Your task to perform on an android device: What's on my calendar tomorrow? Image 0: 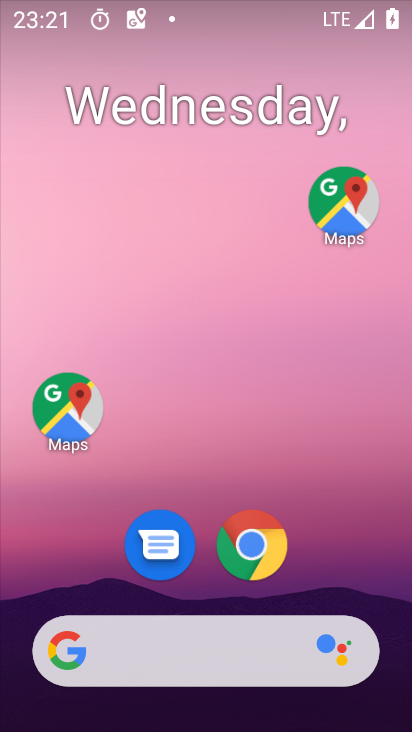
Step 0: drag from (315, 597) to (269, 123)
Your task to perform on an android device: What's on my calendar tomorrow? Image 1: 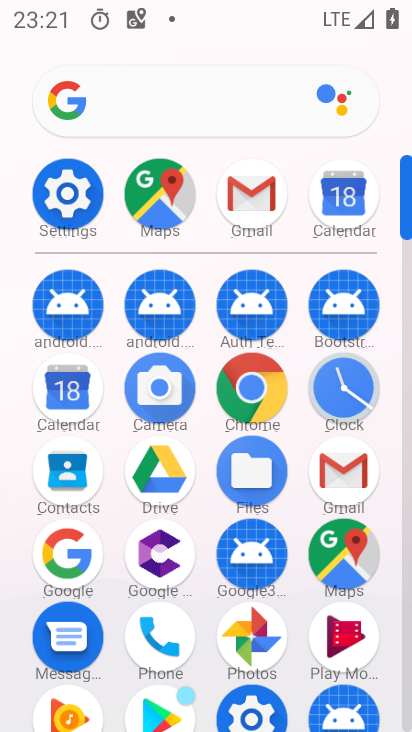
Step 1: click (62, 384)
Your task to perform on an android device: What's on my calendar tomorrow? Image 2: 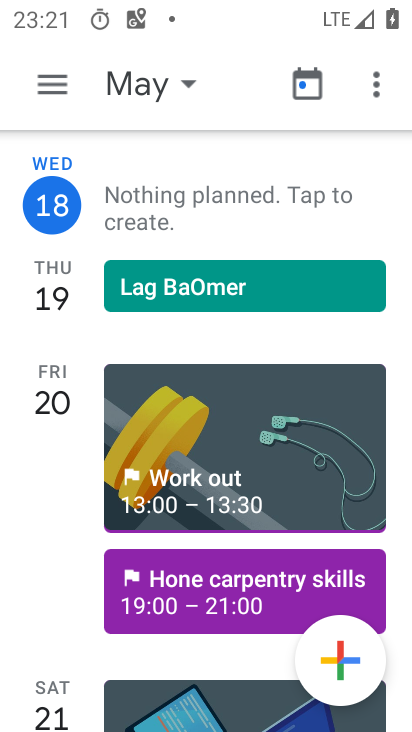
Step 2: click (151, 90)
Your task to perform on an android device: What's on my calendar tomorrow? Image 3: 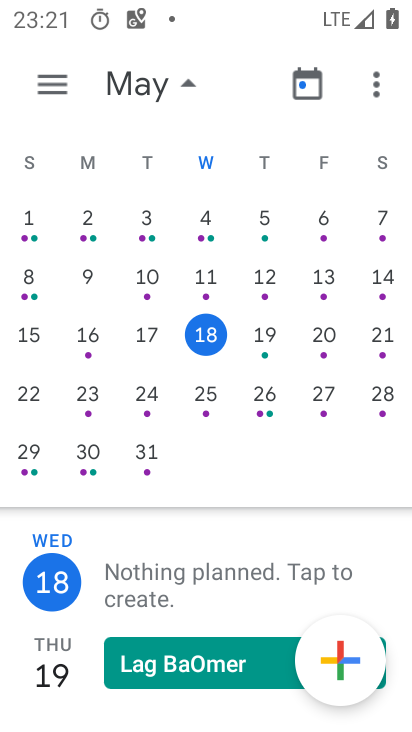
Step 3: click (253, 342)
Your task to perform on an android device: What's on my calendar tomorrow? Image 4: 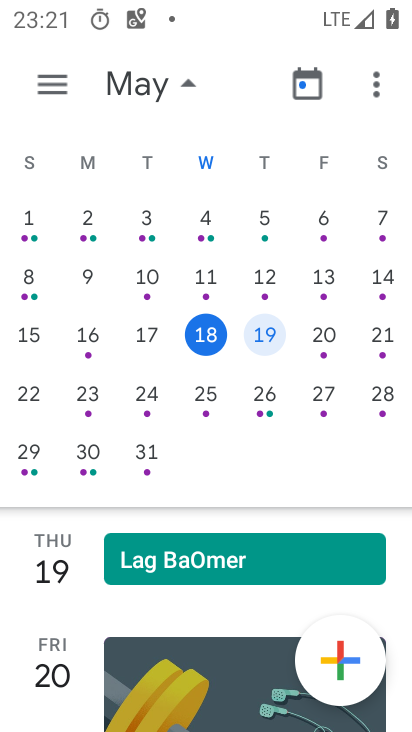
Step 4: task complete